Your task to perform on an android device: set default search engine in the chrome app Image 0: 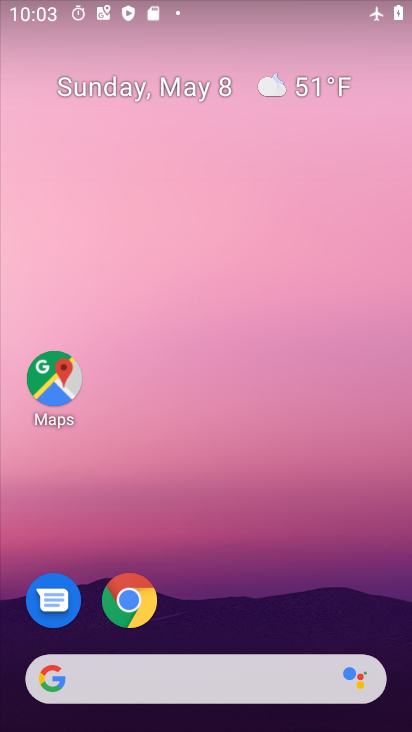
Step 0: drag from (294, 512) to (226, 0)
Your task to perform on an android device: set default search engine in the chrome app Image 1: 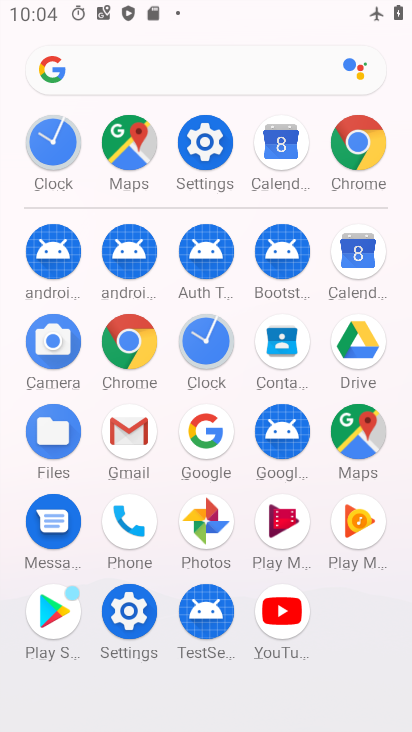
Step 1: click (361, 140)
Your task to perform on an android device: set default search engine in the chrome app Image 2: 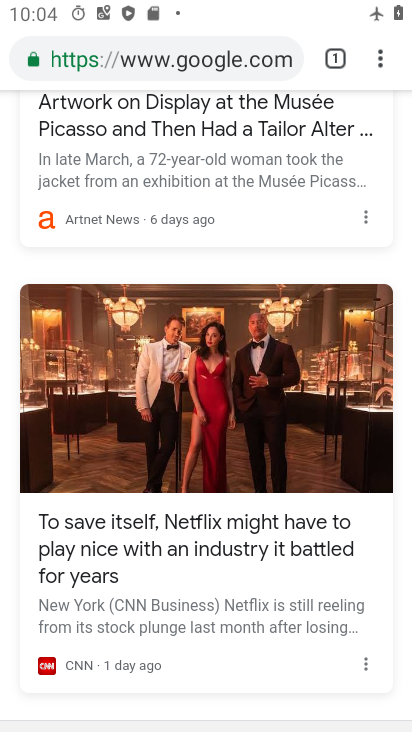
Step 2: drag from (381, 63) to (194, 638)
Your task to perform on an android device: set default search engine in the chrome app Image 3: 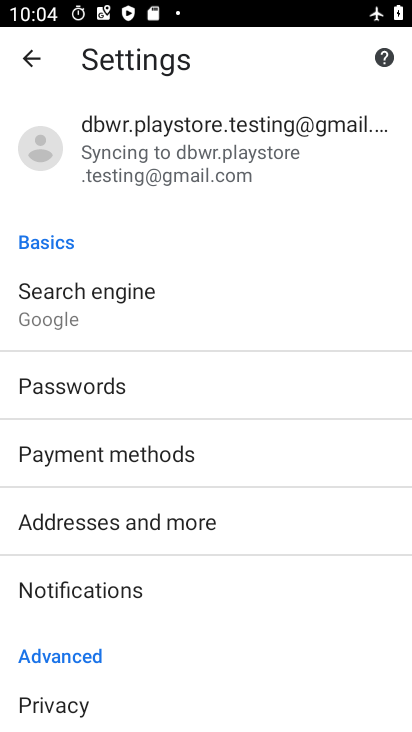
Step 3: click (152, 314)
Your task to perform on an android device: set default search engine in the chrome app Image 4: 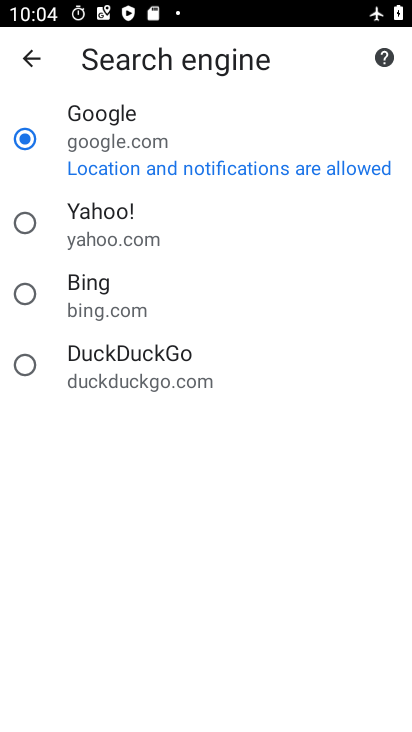
Step 4: click (141, 223)
Your task to perform on an android device: set default search engine in the chrome app Image 5: 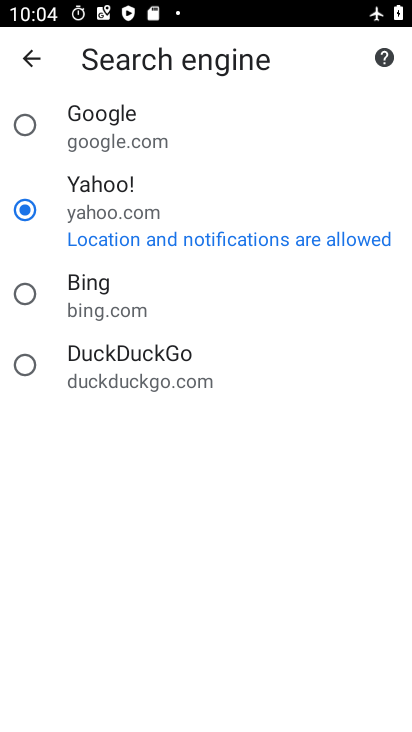
Step 5: task complete